Your task to perform on an android device: turn smart compose on in the gmail app Image 0: 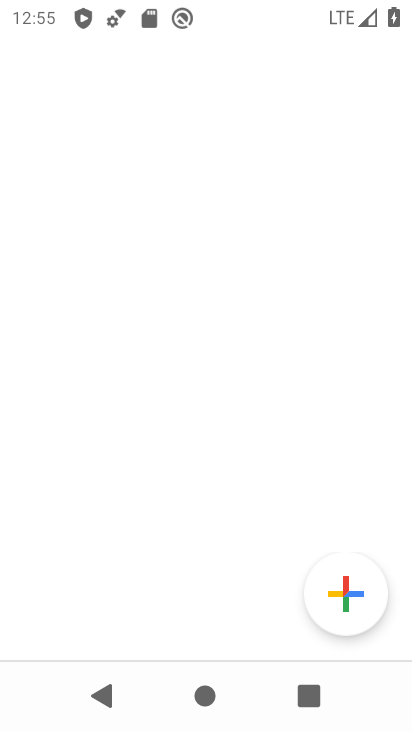
Step 0: click (225, 581)
Your task to perform on an android device: turn smart compose on in the gmail app Image 1: 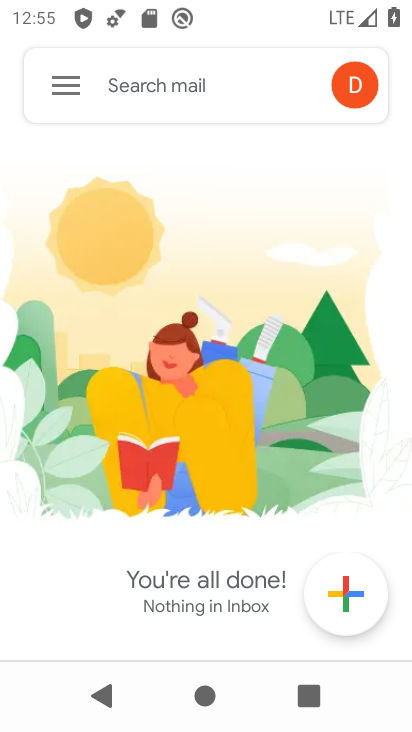
Step 1: click (61, 83)
Your task to perform on an android device: turn smart compose on in the gmail app Image 2: 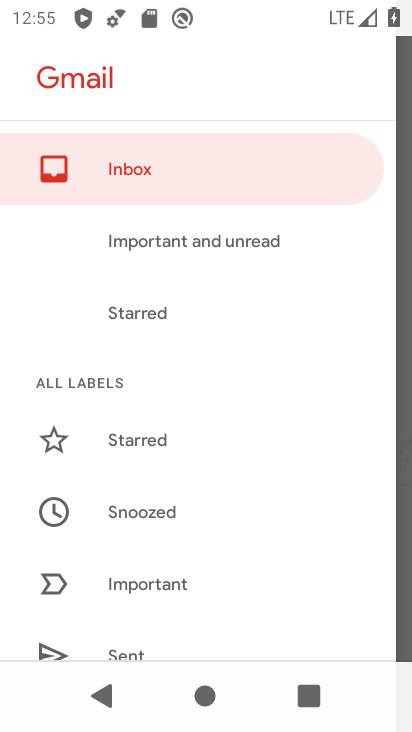
Step 2: drag from (148, 629) to (180, 354)
Your task to perform on an android device: turn smart compose on in the gmail app Image 3: 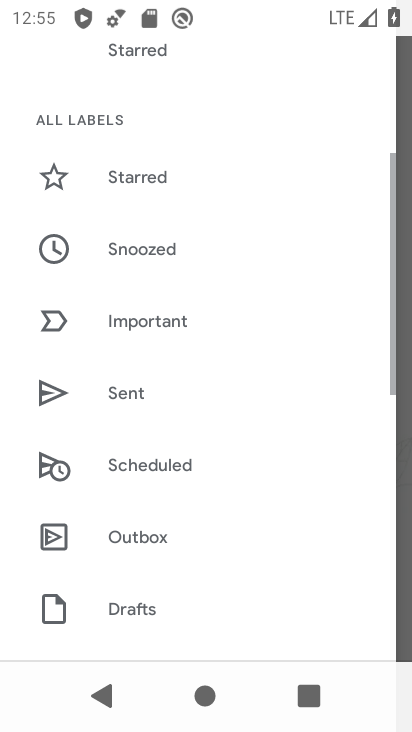
Step 3: drag from (182, 609) to (209, 324)
Your task to perform on an android device: turn smart compose on in the gmail app Image 4: 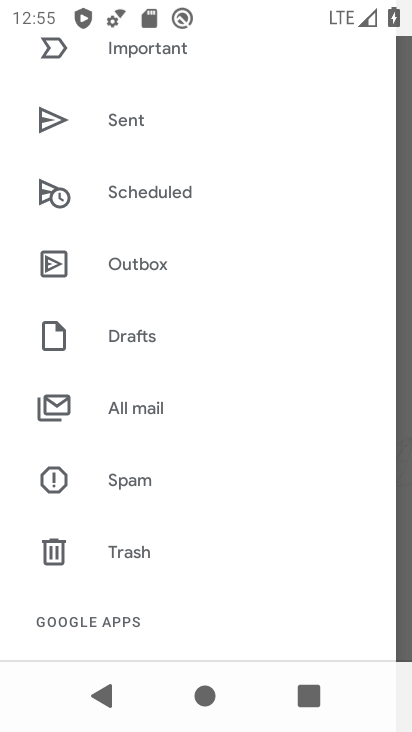
Step 4: drag from (113, 593) to (146, 370)
Your task to perform on an android device: turn smart compose on in the gmail app Image 5: 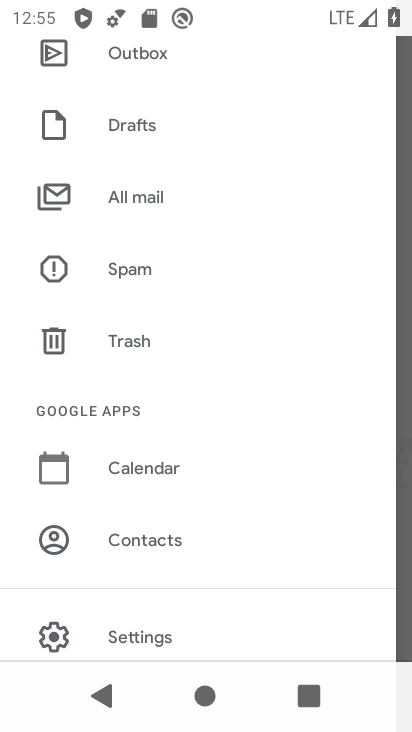
Step 5: click (120, 636)
Your task to perform on an android device: turn smart compose on in the gmail app Image 6: 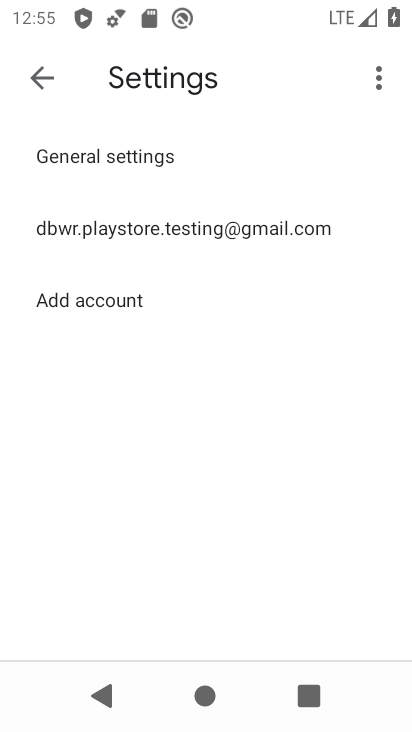
Step 6: click (190, 230)
Your task to perform on an android device: turn smart compose on in the gmail app Image 7: 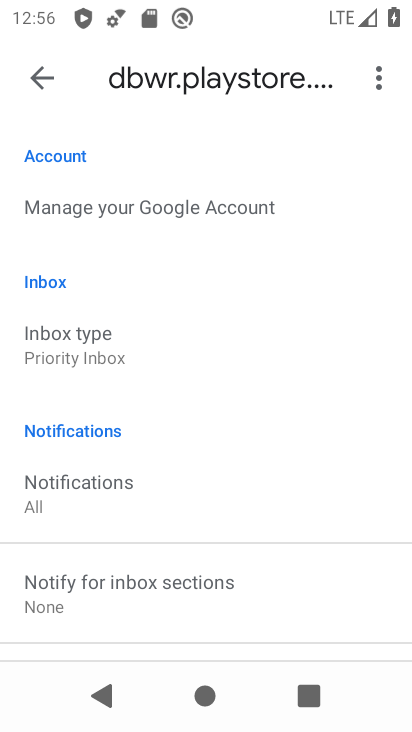
Step 7: task complete